Your task to perform on an android device: Open the web browser Image 0: 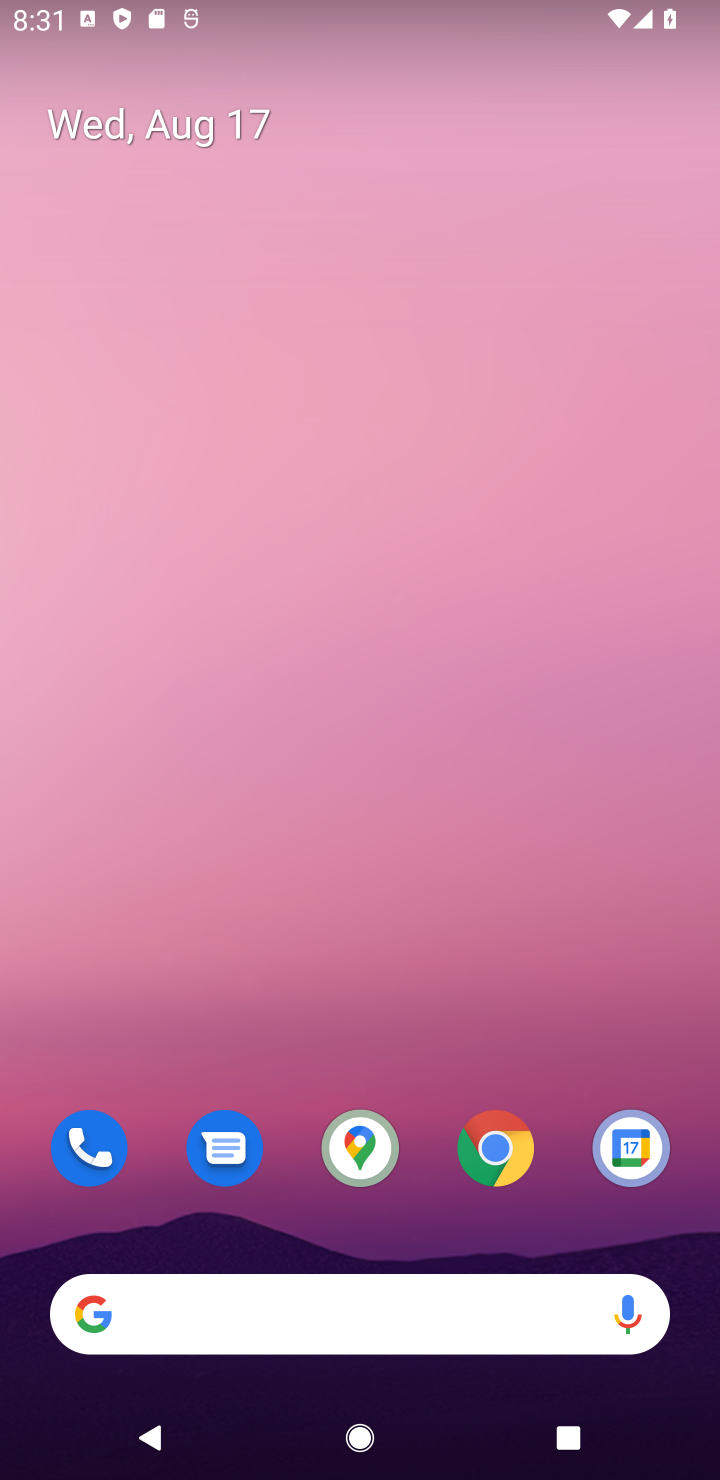
Step 0: click (498, 1156)
Your task to perform on an android device: Open the web browser Image 1: 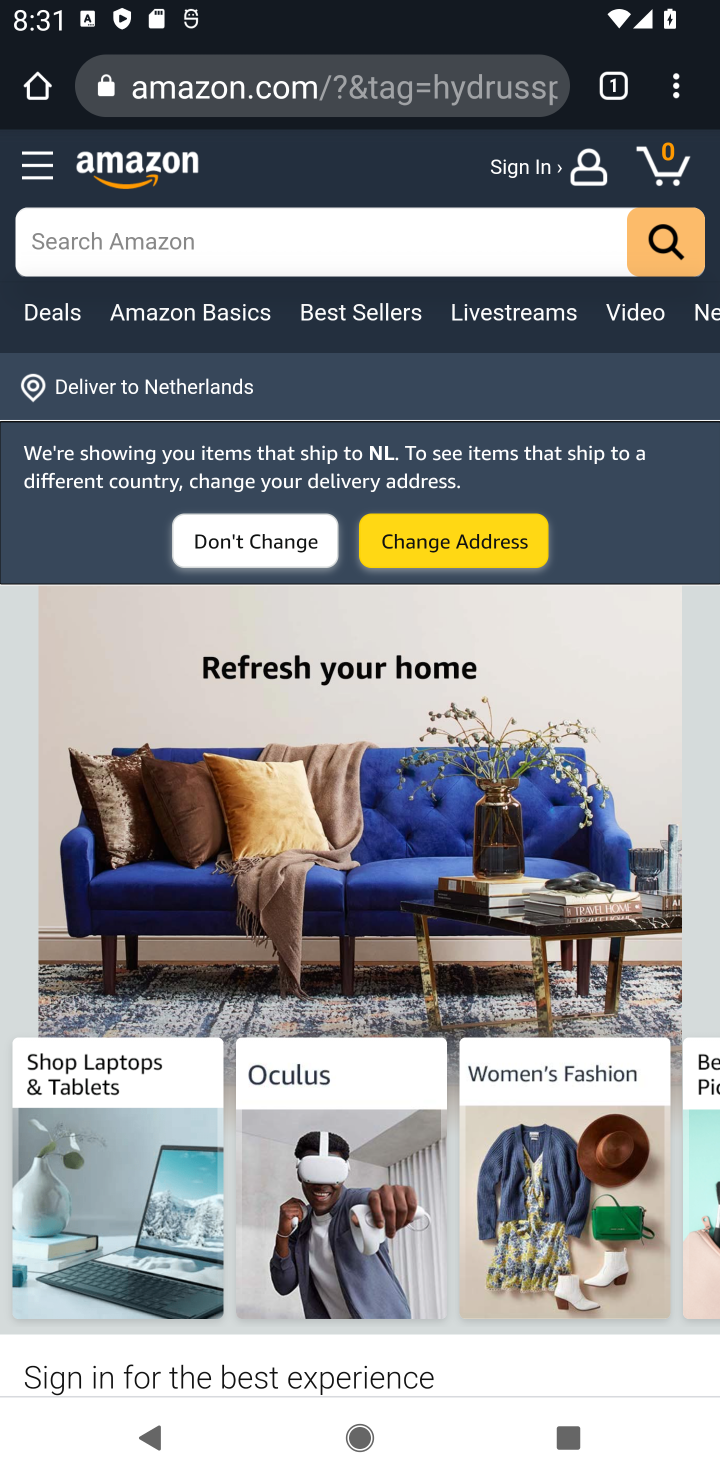
Step 1: task complete